Your task to perform on an android device: Toggle the flashlight Image 0: 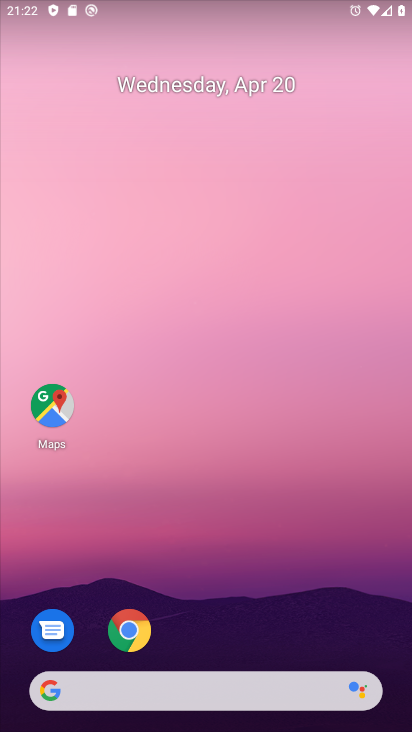
Step 0: drag from (291, 555) to (221, 92)
Your task to perform on an android device: Toggle the flashlight Image 1: 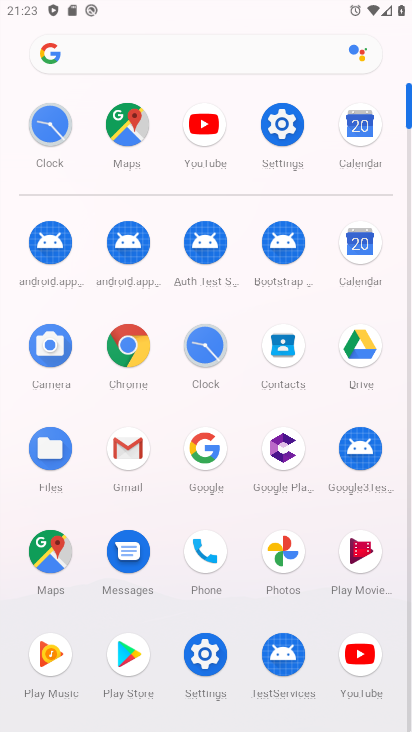
Step 1: click (291, 116)
Your task to perform on an android device: Toggle the flashlight Image 2: 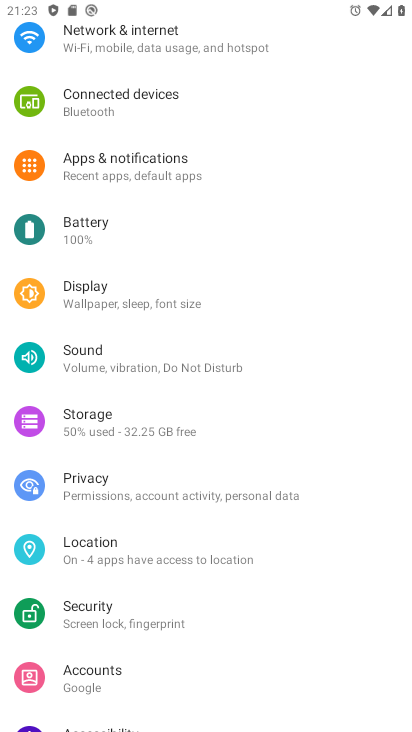
Step 2: click (173, 162)
Your task to perform on an android device: Toggle the flashlight Image 3: 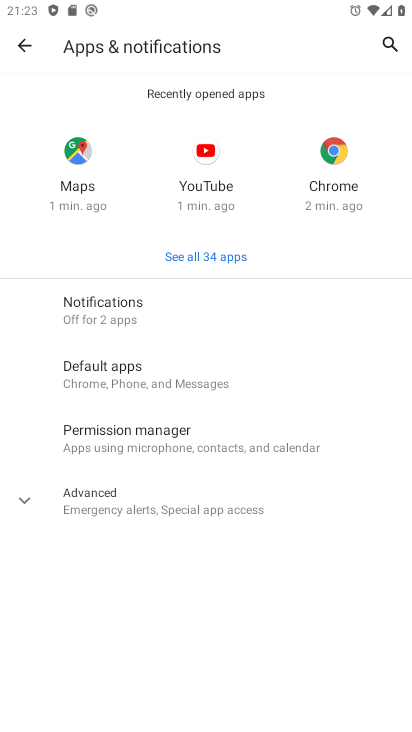
Step 3: click (200, 249)
Your task to perform on an android device: Toggle the flashlight Image 4: 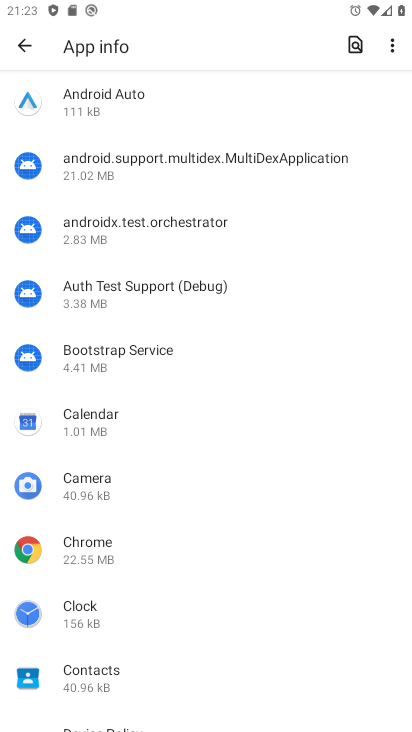
Step 4: task complete